Your task to perform on an android device: Open Chrome and go to the settings page Image 0: 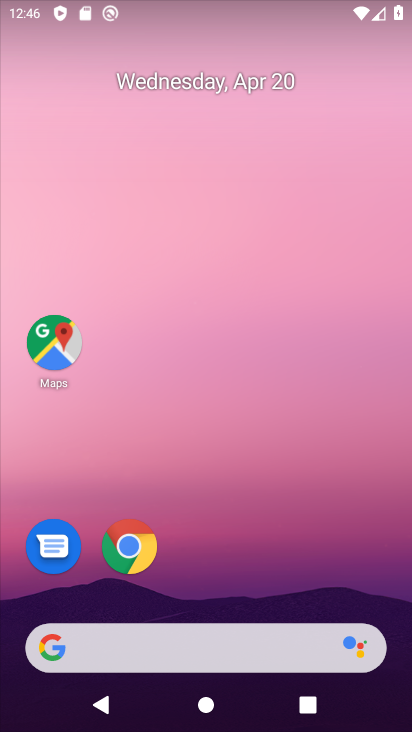
Step 0: click (129, 545)
Your task to perform on an android device: Open Chrome and go to the settings page Image 1: 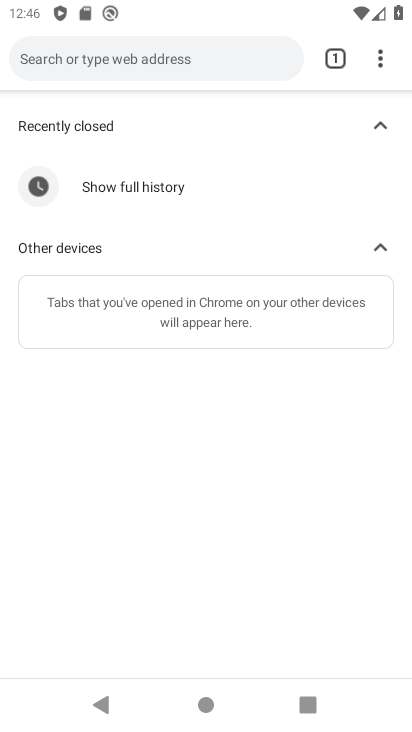
Step 1: task complete